Your task to perform on an android device: turn off location Image 0: 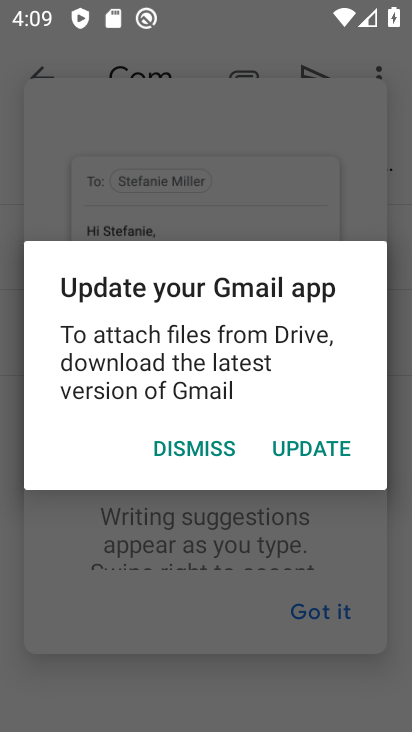
Step 0: press home button
Your task to perform on an android device: turn off location Image 1: 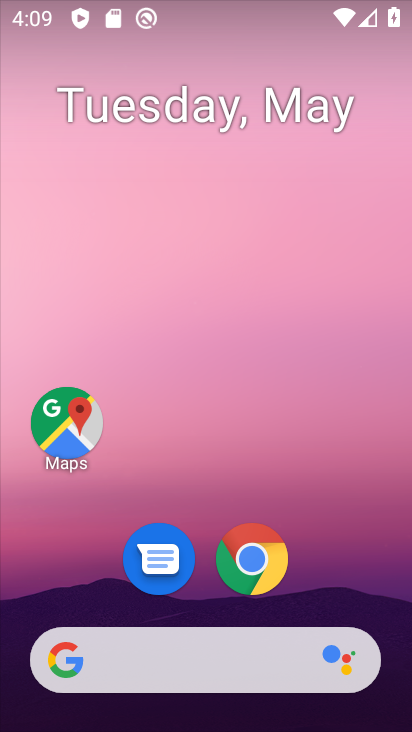
Step 1: drag from (331, 573) to (291, 58)
Your task to perform on an android device: turn off location Image 2: 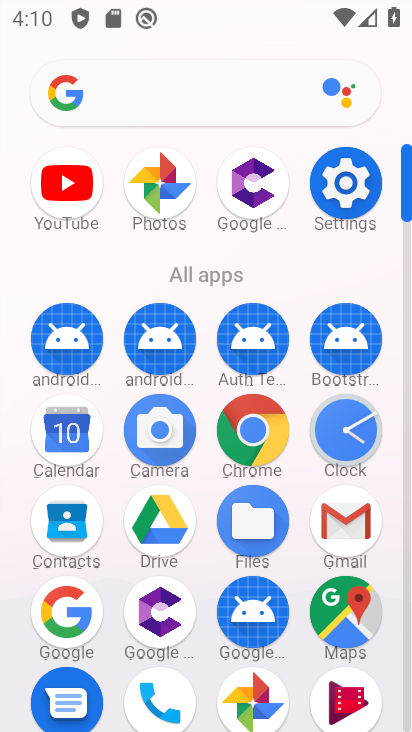
Step 2: click (332, 182)
Your task to perform on an android device: turn off location Image 3: 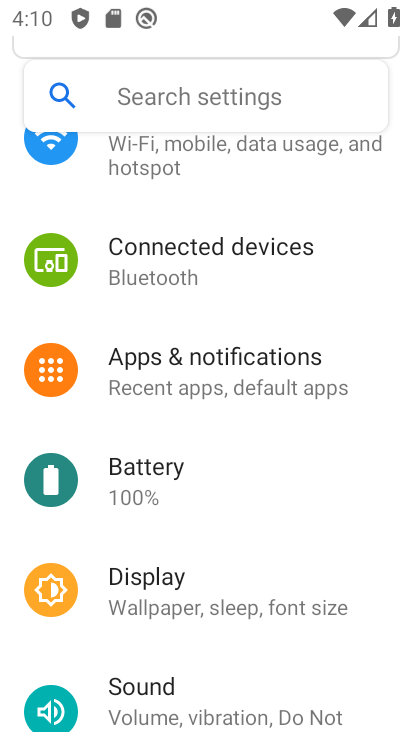
Step 3: drag from (216, 638) to (204, 220)
Your task to perform on an android device: turn off location Image 4: 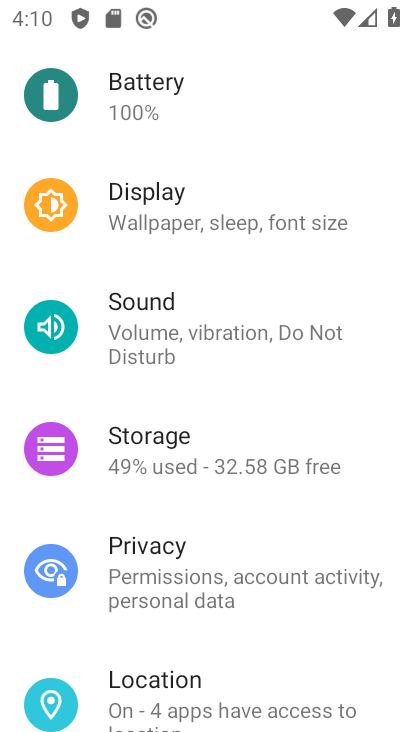
Step 4: click (180, 685)
Your task to perform on an android device: turn off location Image 5: 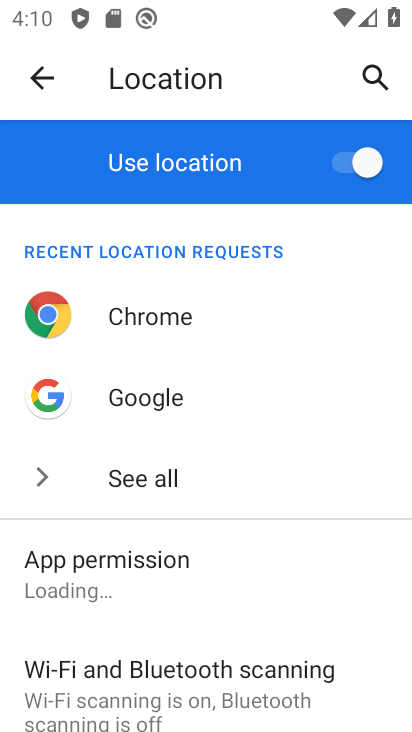
Step 5: click (355, 168)
Your task to perform on an android device: turn off location Image 6: 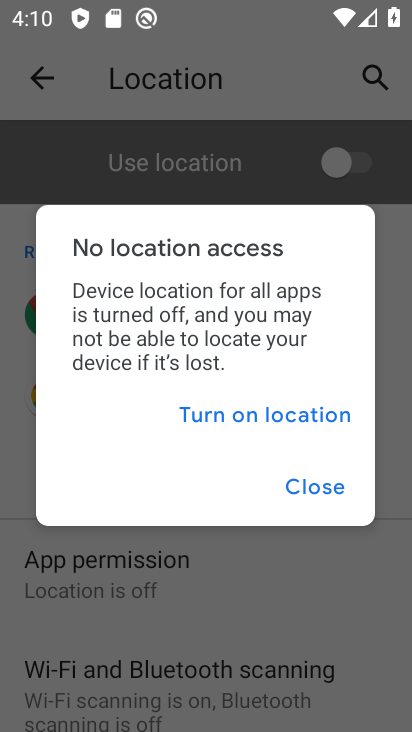
Step 6: click (307, 483)
Your task to perform on an android device: turn off location Image 7: 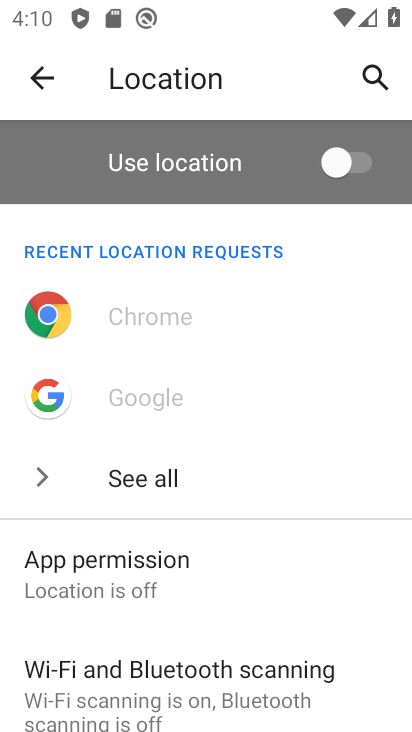
Step 7: task complete